Your task to perform on an android device: open chrome privacy settings Image 0: 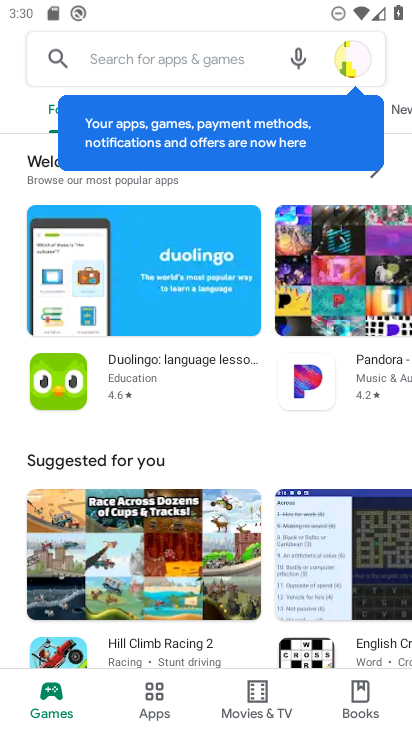
Step 0: press back button
Your task to perform on an android device: open chrome privacy settings Image 1: 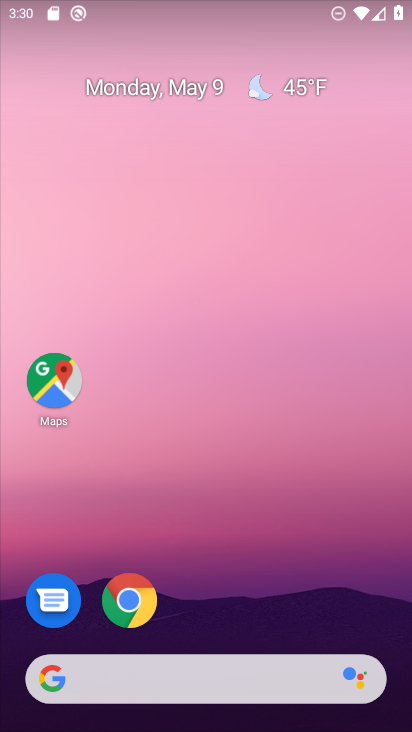
Step 1: drag from (293, 575) to (245, 18)
Your task to perform on an android device: open chrome privacy settings Image 2: 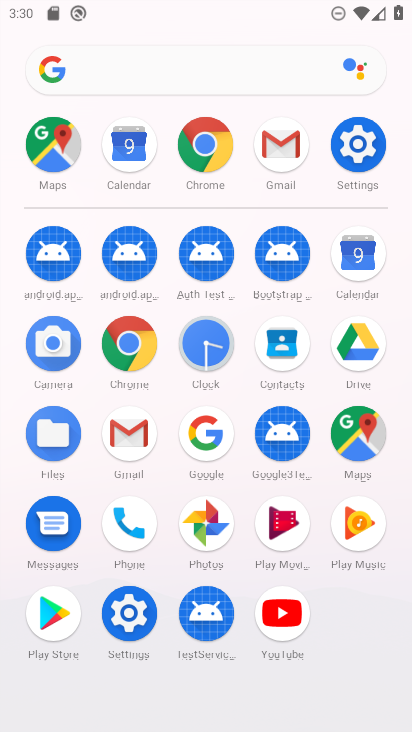
Step 2: drag from (7, 549) to (9, 160)
Your task to perform on an android device: open chrome privacy settings Image 3: 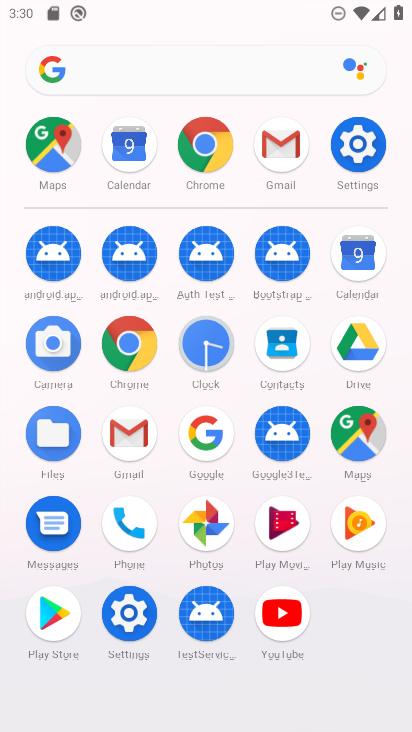
Step 3: click (129, 345)
Your task to perform on an android device: open chrome privacy settings Image 4: 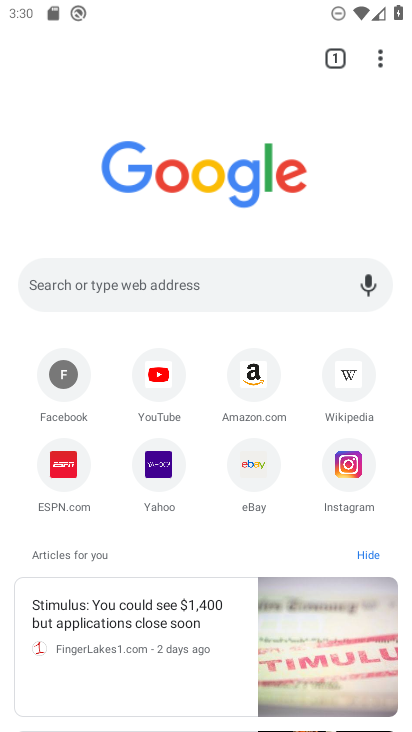
Step 4: drag from (19, 510) to (0, 197)
Your task to perform on an android device: open chrome privacy settings Image 5: 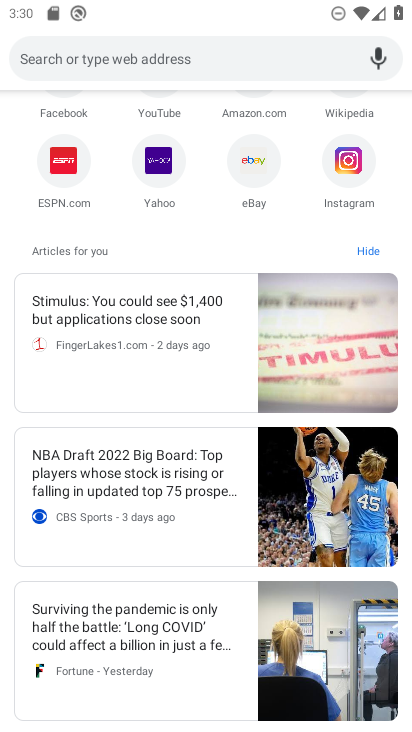
Step 5: drag from (94, 236) to (102, 621)
Your task to perform on an android device: open chrome privacy settings Image 6: 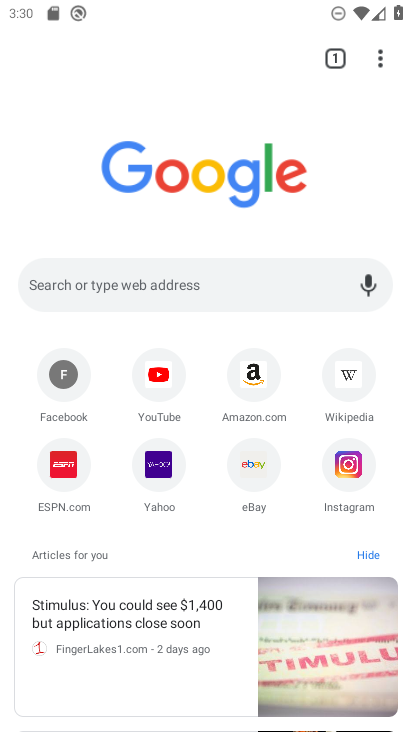
Step 6: drag from (382, 61) to (185, 480)
Your task to perform on an android device: open chrome privacy settings Image 7: 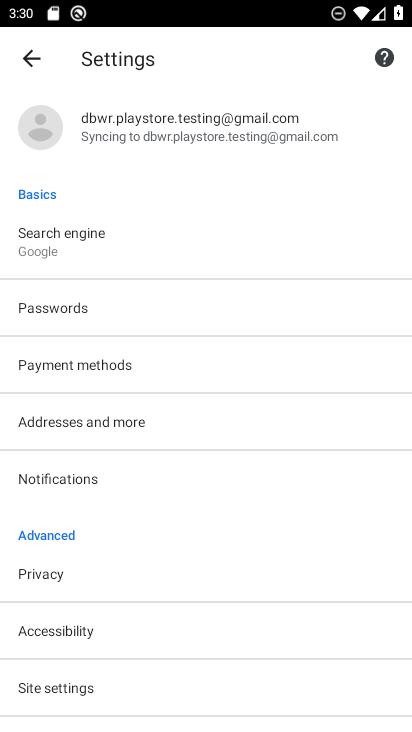
Step 7: click (71, 580)
Your task to perform on an android device: open chrome privacy settings Image 8: 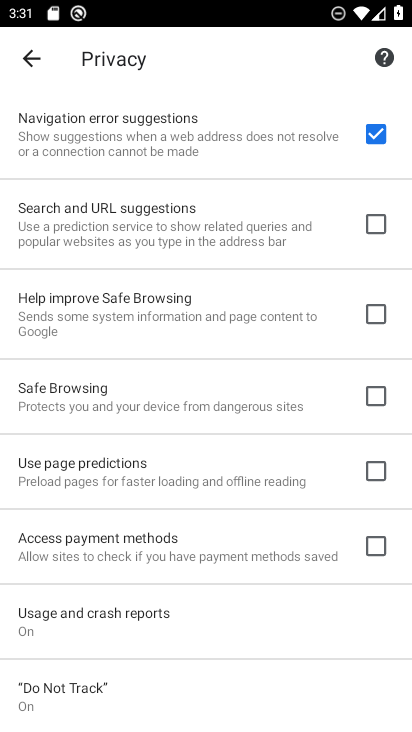
Step 8: task complete